Your task to perform on an android device: change the clock display to digital Image 0: 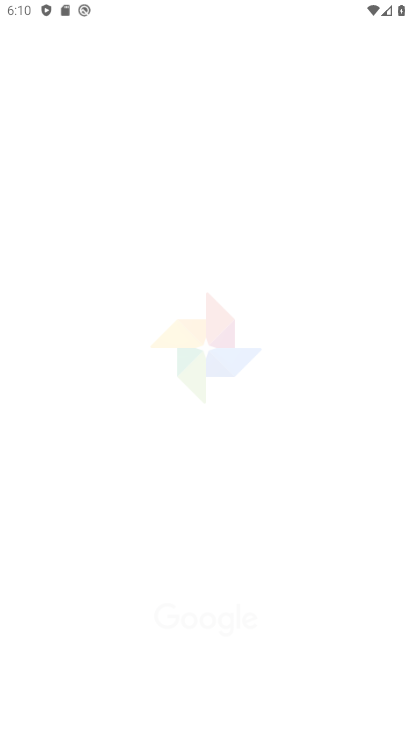
Step 0: click (173, 680)
Your task to perform on an android device: change the clock display to digital Image 1: 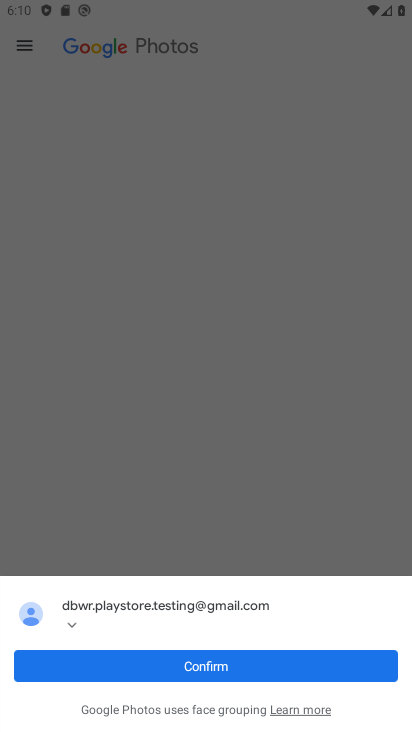
Step 1: press home button
Your task to perform on an android device: change the clock display to digital Image 2: 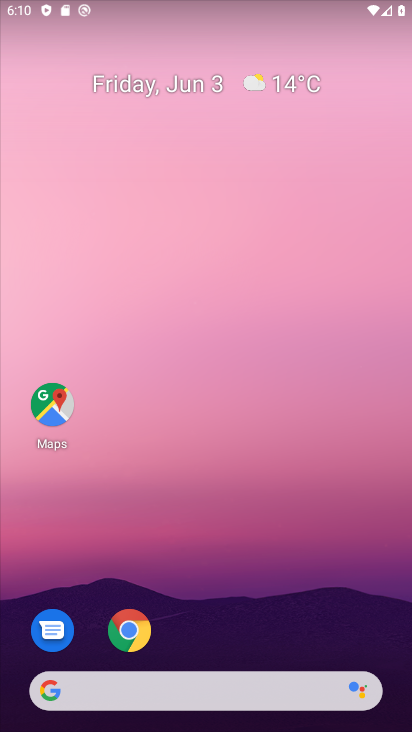
Step 2: drag from (197, 633) to (209, 180)
Your task to perform on an android device: change the clock display to digital Image 3: 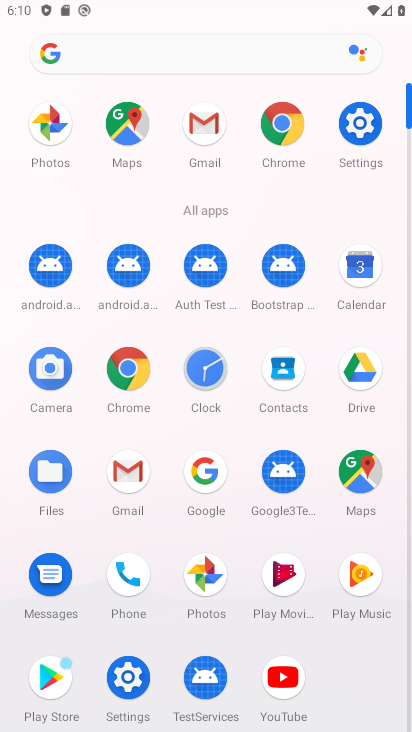
Step 3: click (206, 405)
Your task to perform on an android device: change the clock display to digital Image 4: 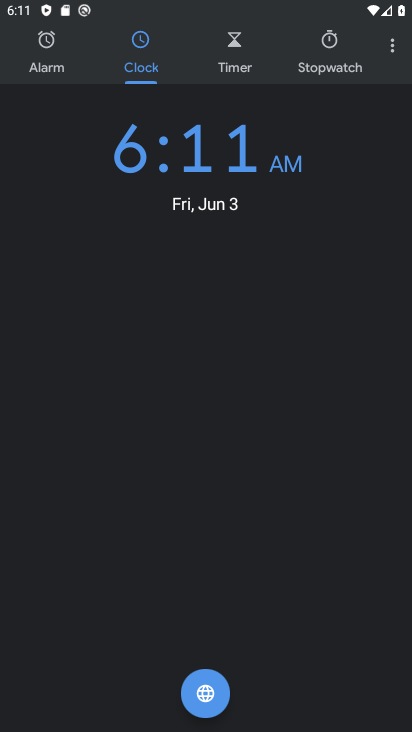
Step 4: click (391, 47)
Your task to perform on an android device: change the clock display to digital Image 5: 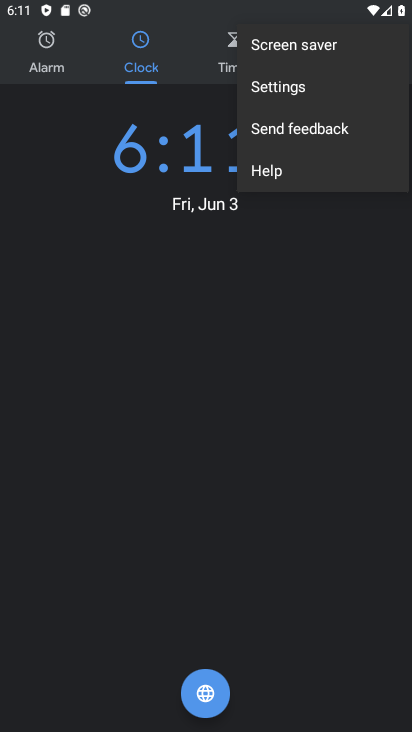
Step 5: click (311, 76)
Your task to perform on an android device: change the clock display to digital Image 6: 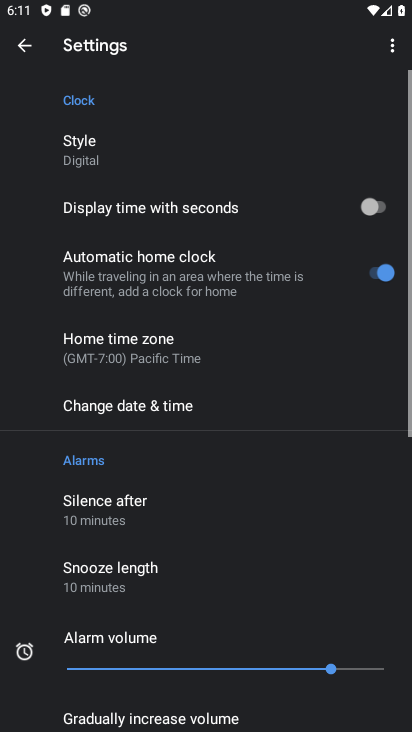
Step 6: click (85, 149)
Your task to perform on an android device: change the clock display to digital Image 7: 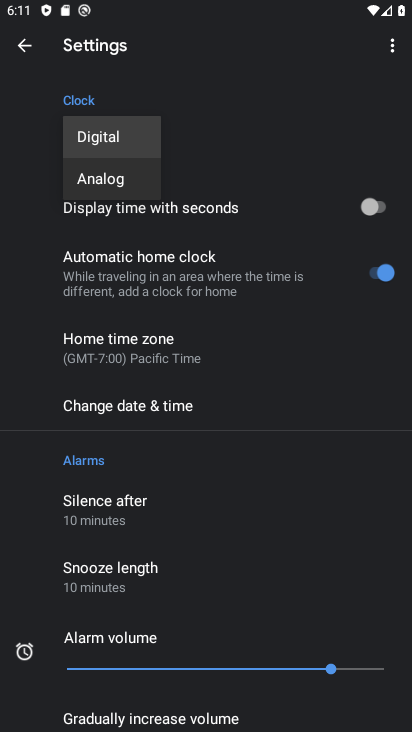
Step 7: task complete